Your task to perform on an android device: Is it going to rain tomorrow? Image 0: 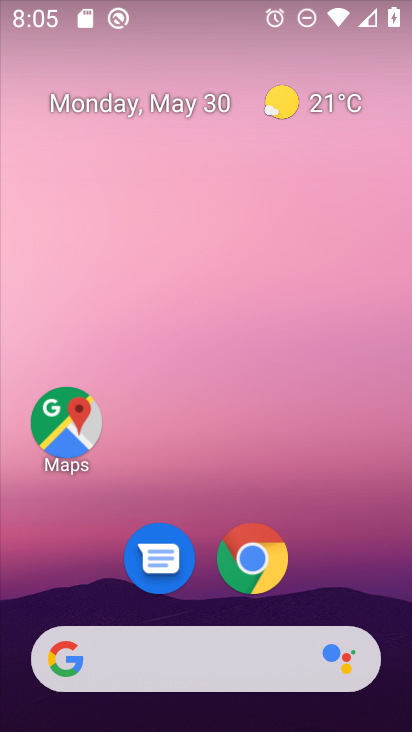
Step 0: click (222, 666)
Your task to perform on an android device: Is it going to rain tomorrow? Image 1: 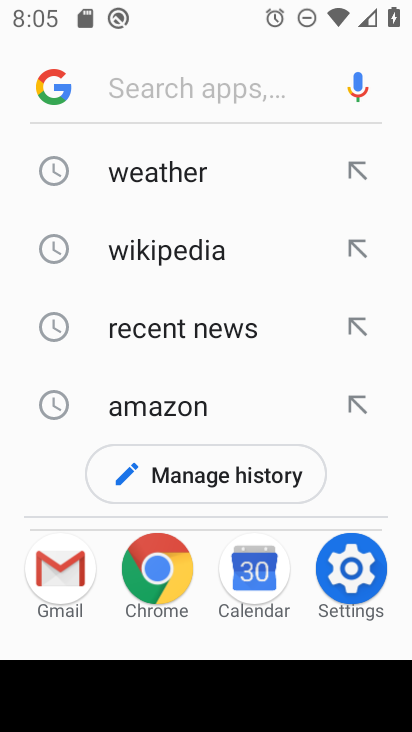
Step 1: click (150, 169)
Your task to perform on an android device: Is it going to rain tomorrow? Image 2: 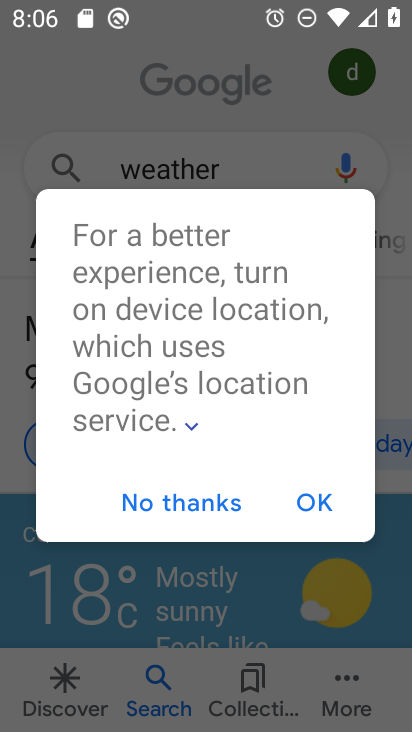
Step 2: click (316, 496)
Your task to perform on an android device: Is it going to rain tomorrow? Image 3: 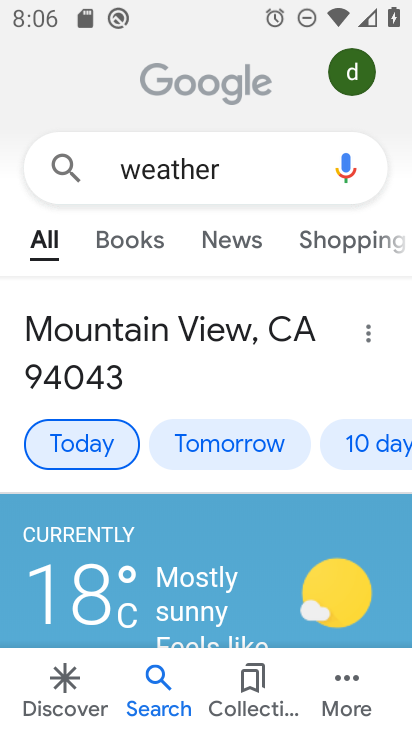
Step 3: click (216, 433)
Your task to perform on an android device: Is it going to rain tomorrow? Image 4: 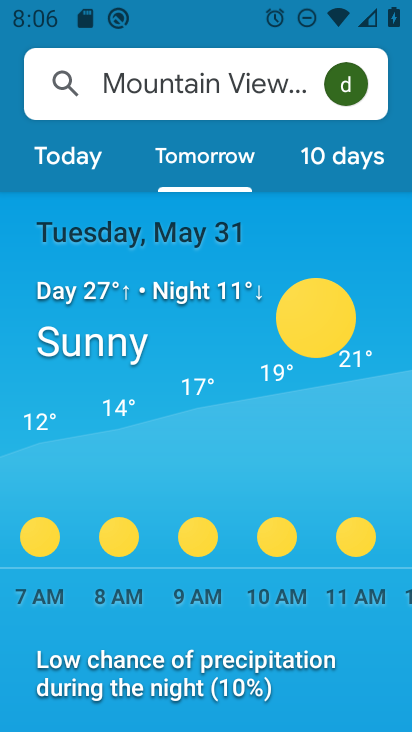
Step 4: task complete